Your task to perform on an android device: turn on the 24-hour format for clock Image 0: 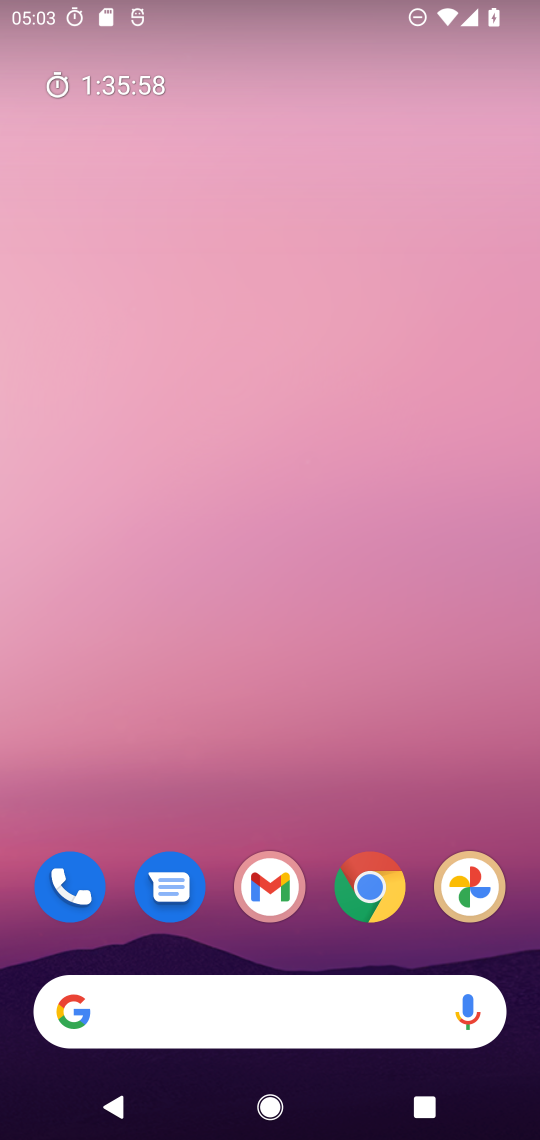
Step 0: drag from (404, 791) to (466, 284)
Your task to perform on an android device: turn on the 24-hour format for clock Image 1: 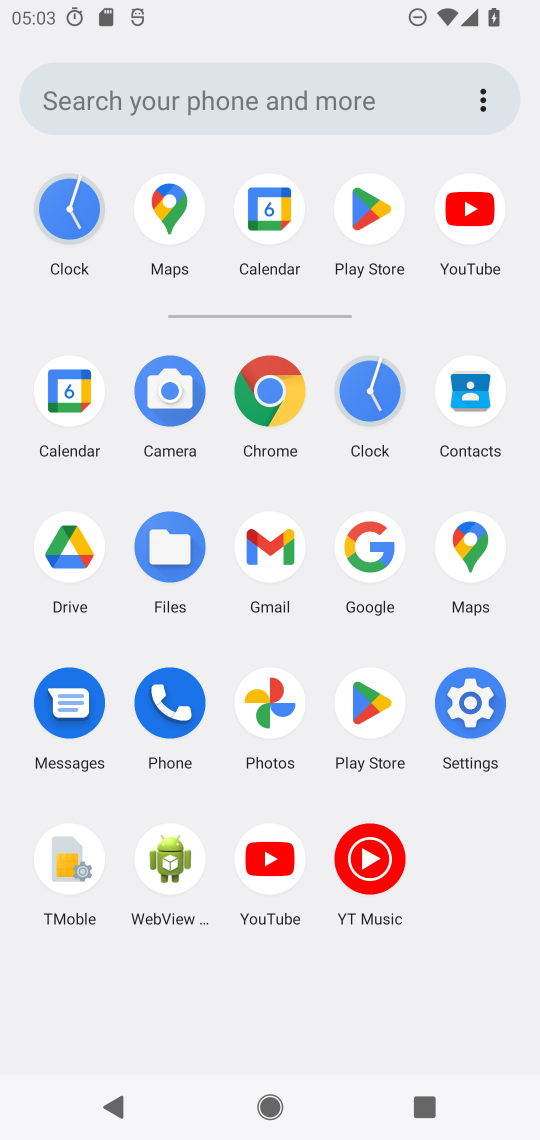
Step 1: click (374, 395)
Your task to perform on an android device: turn on the 24-hour format for clock Image 2: 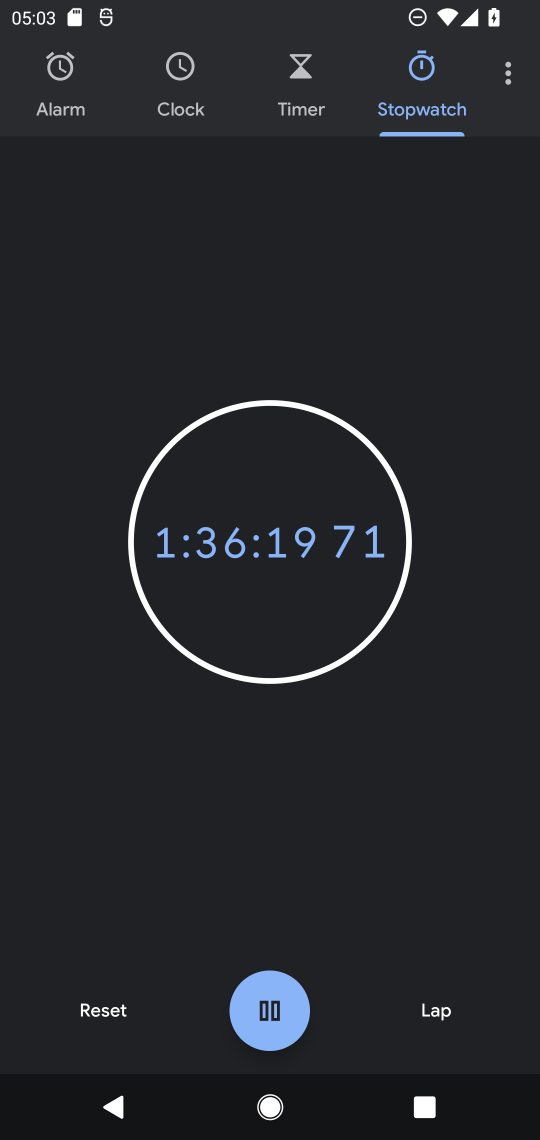
Step 2: click (501, 88)
Your task to perform on an android device: turn on the 24-hour format for clock Image 3: 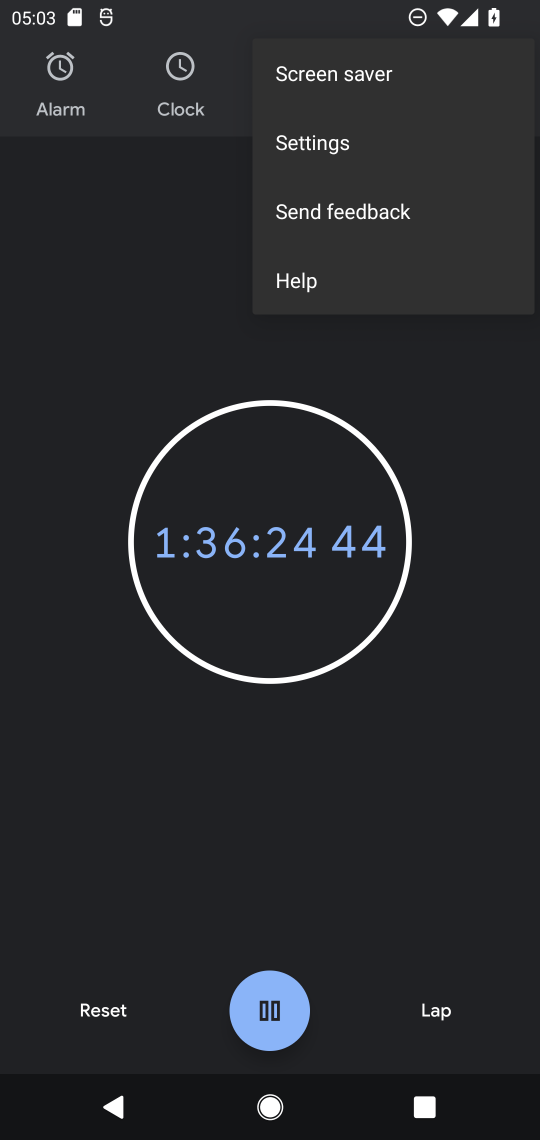
Step 3: click (364, 157)
Your task to perform on an android device: turn on the 24-hour format for clock Image 4: 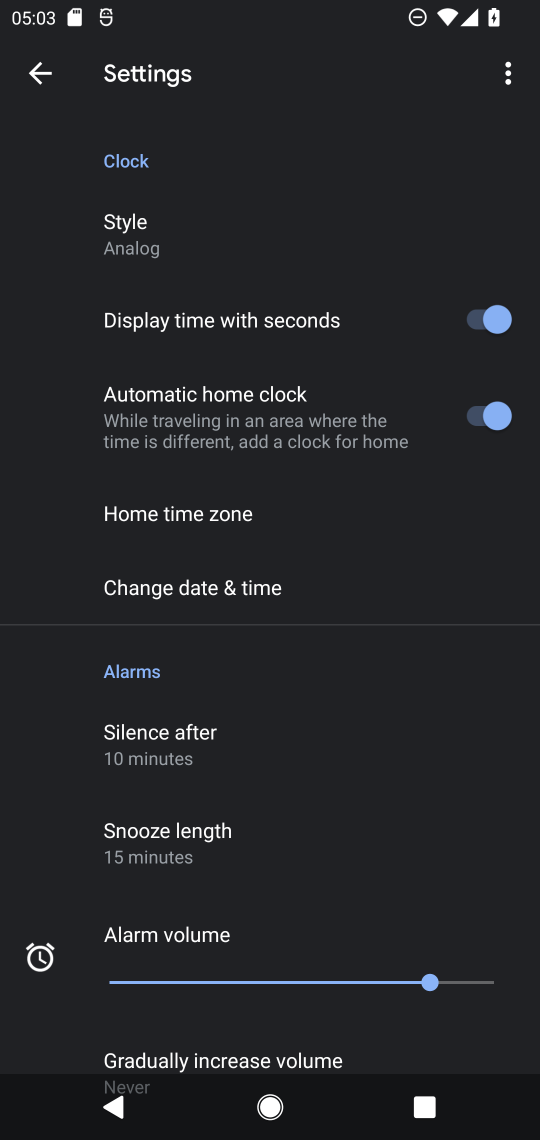
Step 4: drag from (381, 665) to (406, 495)
Your task to perform on an android device: turn on the 24-hour format for clock Image 5: 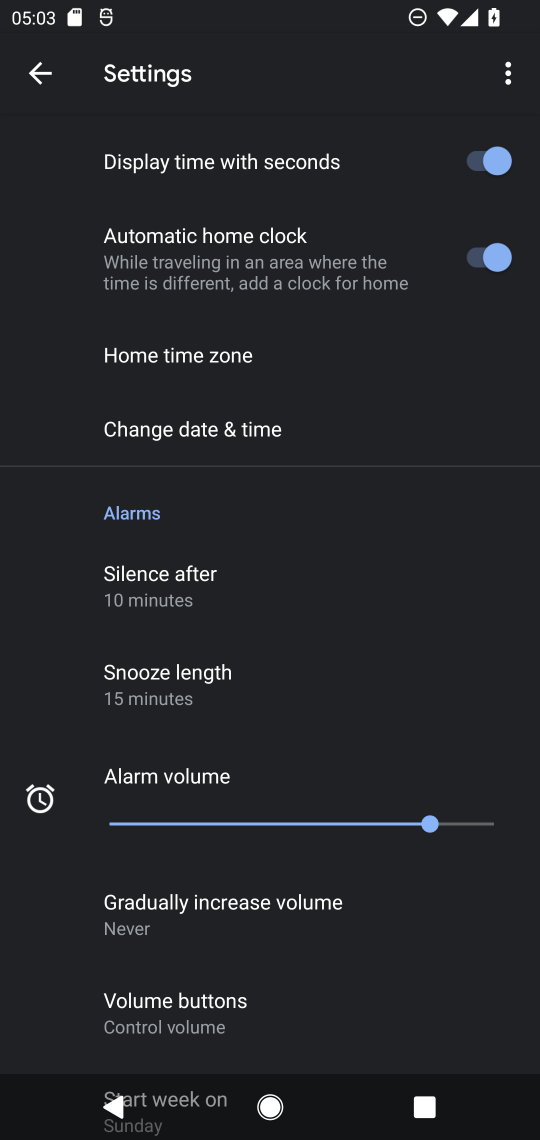
Step 5: drag from (397, 621) to (415, 417)
Your task to perform on an android device: turn on the 24-hour format for clock Image 6: 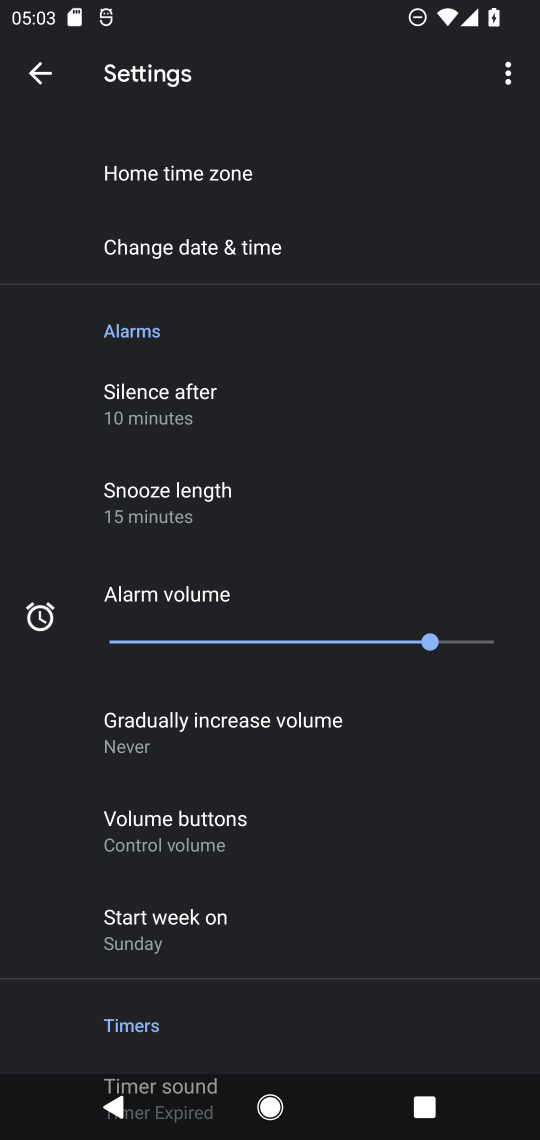
Step 6: click (324, 267)
Your task to perform on an android device: turn on the 24-hour format for clock Image 7: 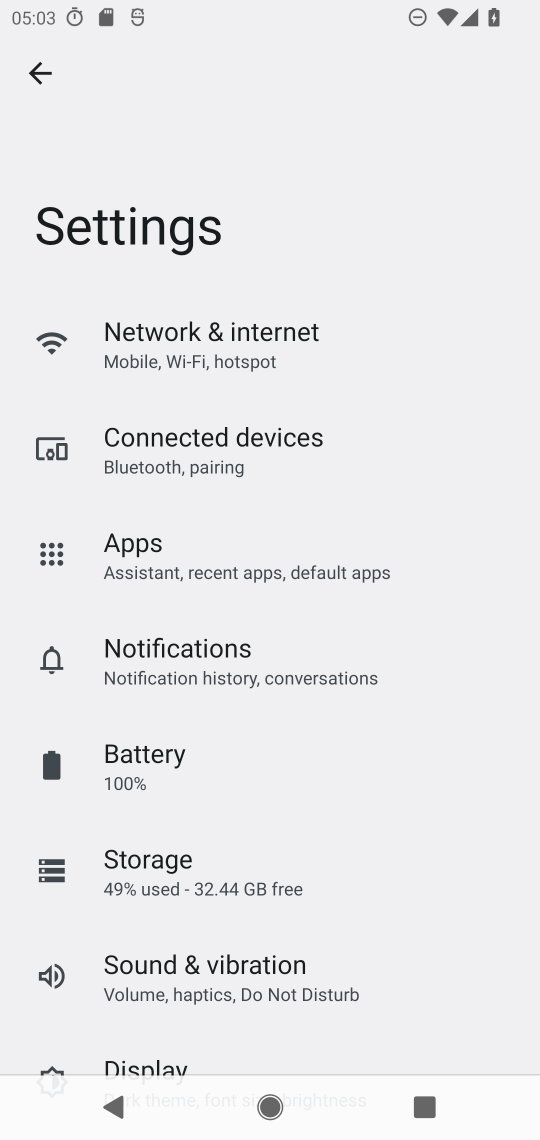
Step 7: task complete